Your task to perform on an android device: turn off smart reply in the gmail app Image 0: 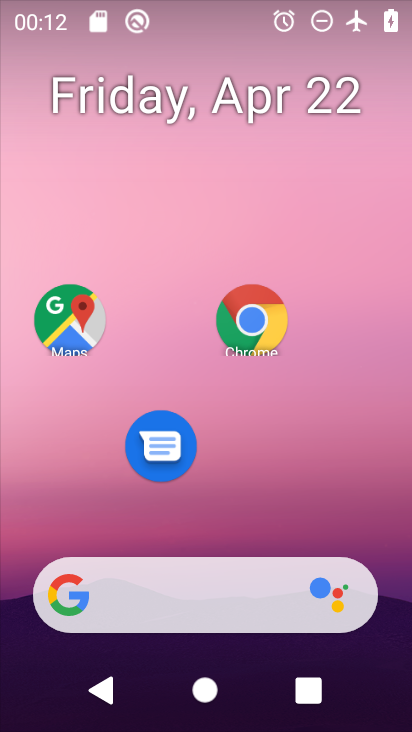
Step 0: drag from (200, 542) to (223, 146)
Your task to perform on an android device: turn off smart reply in the gmail app Image 1: 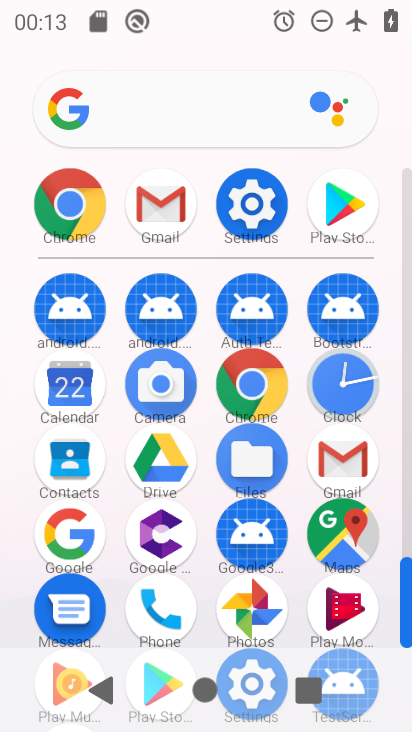
Step 1: click (344, 454)
Your task to perform on an android device: turn off smart reply in the gmail app Image 2: 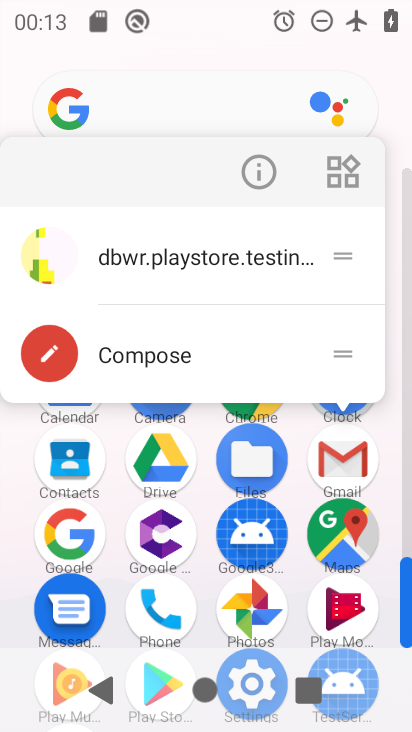
Step 2: click (256, 178)
Your task to perform on an android device: turn off smart reply in the gmail app Image 3: 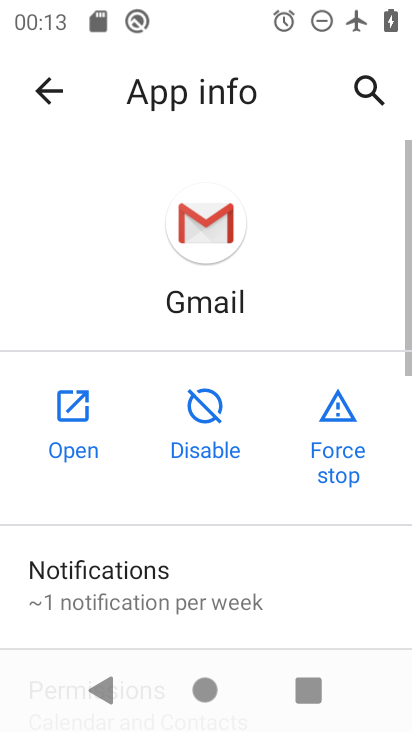
Step 3: click (86, 395)
Your task to perform on an android device: turn off smart reply in the gmail app Image 4: 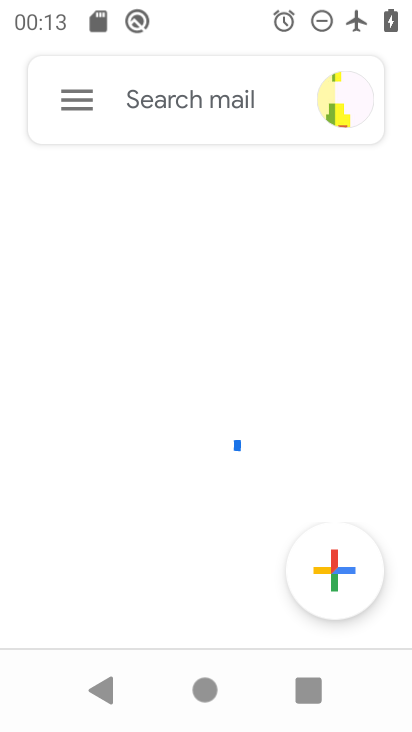
Step 4: click (62, 93)
Your task to perform on an android device: turn off smart reply in the gmail app Image 5: 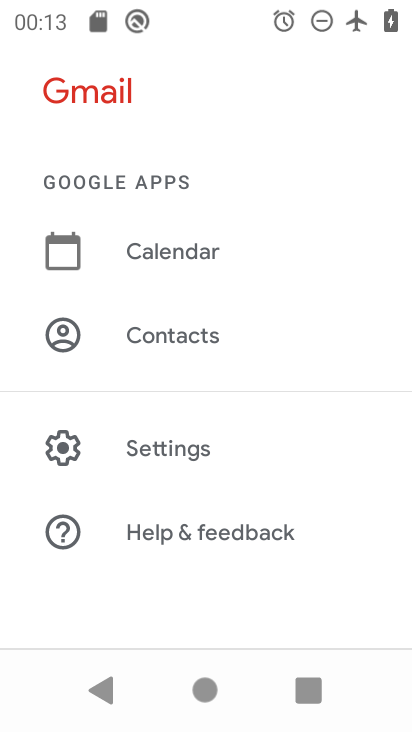
Step 5: drag from (184, 498) to (261, 267)
Your task to perform on an android device: turn off smart reply in the gmail app Image 6: 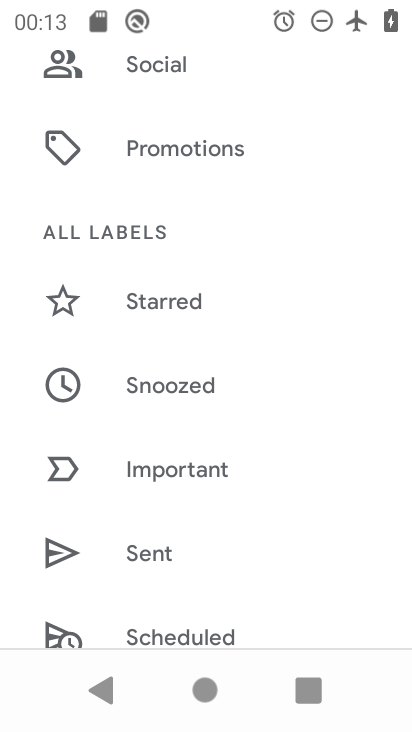
Step 6: drag from (261, 532) to (260, 158)
Your task to perform on an android device: turn off smart reply in the gmail app Image 7: 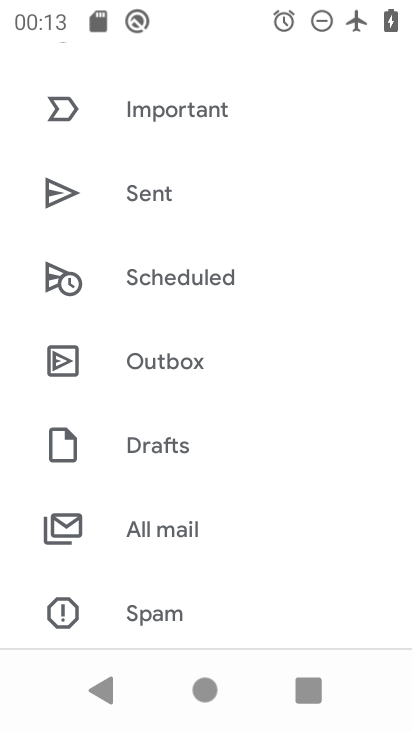
Step 7: drag from (221, 566) to (188, 227)
Your task to perform on an android device: turn off smart reply in the gmail app Image 8: 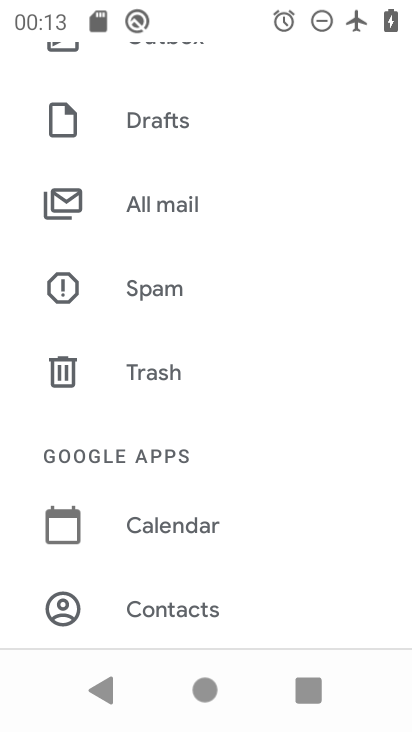
Step 8: drag from (235, 605) to (265, 82)
Your task to perform on an android device: turn off smart reply in the gmail app Image 9: 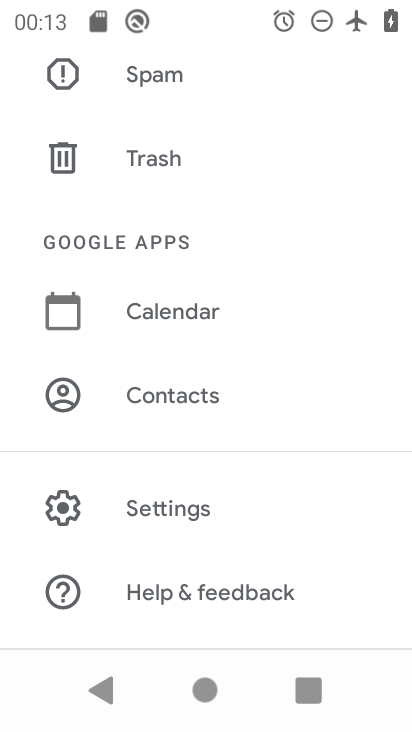
Step 9: drag from (180, 528) to (231, 276)
Your task to perform on an android device: turn off smart reply in the gmail app Image 10: 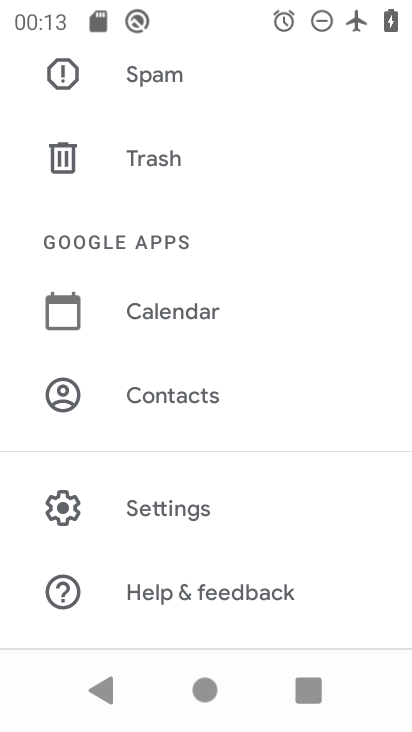
Step 10: click (202, 516)
Your task to perform on an android device: turn off smart reply in the gmail app Image 11: 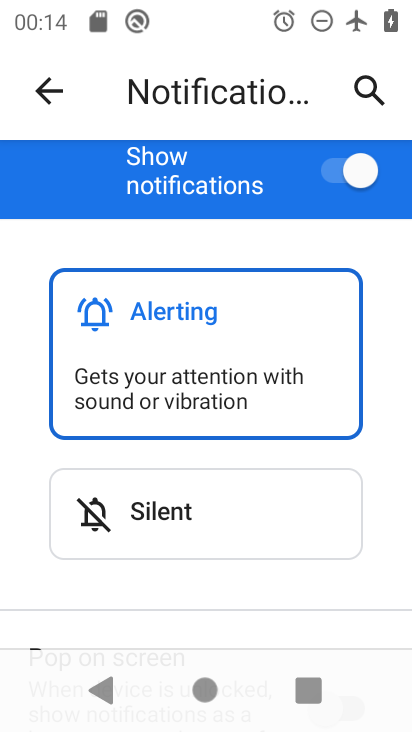
Step 11: drag from (173, 578) to (238, 109)
Your task to perform on an android device: turn off smart reply in the gmail app Image 12: 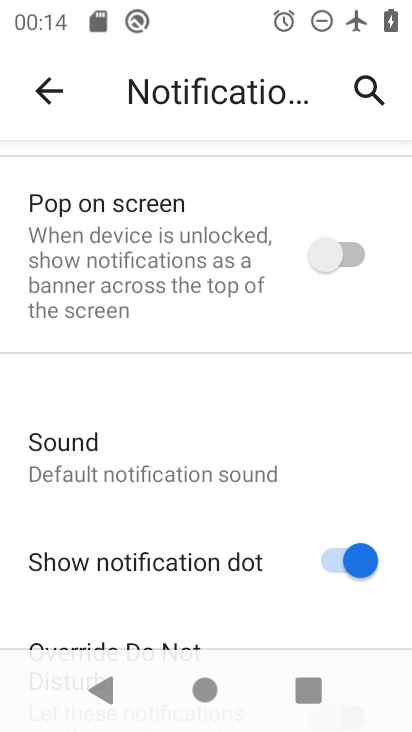
Step 12: drag from (194, 446) to (241, 267)
Your task to perform on an android device: turn off smart reply in the gmail app Image 13: 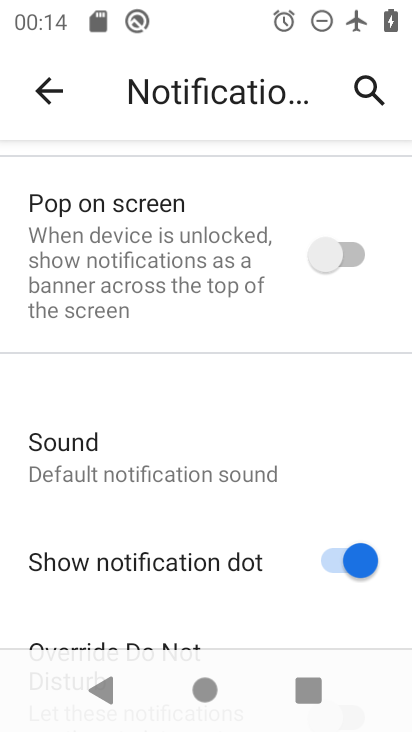
Step 13: drag from (194, 466) to (256, 320)
Your task to perform on an android device: turn off smart reply in the gmail app Image 14: 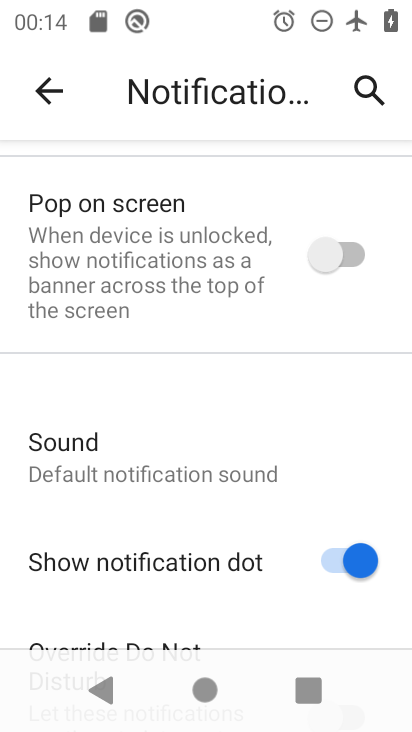
Step 14: drag from (202, 525) to (293, 145)
Your task to perform on an android device: turn off smart reply in the gmail app Image 15: 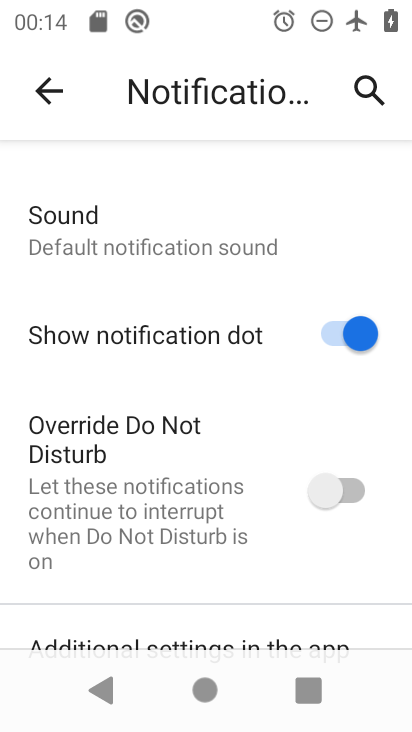
Step 15: drag from (209, 503) to (274, 159)
Your task to perform on an android device: turn off smart reply in the gmail app Image 16: 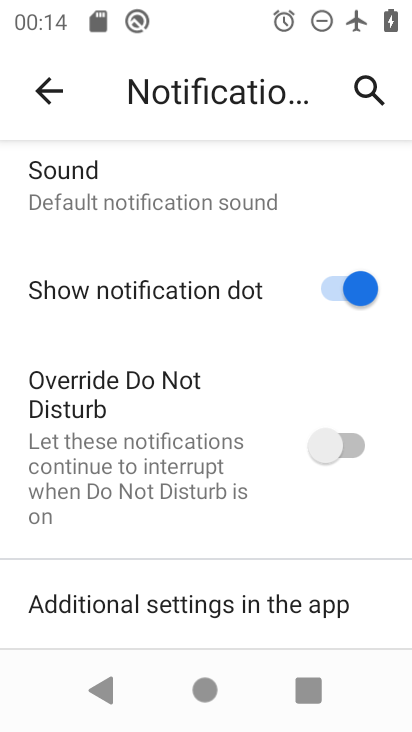
Step 16: drag from (204, 322) to (236, 724)
Your task to perform on an android device: turn off smart reply in the gmail app Image 17: 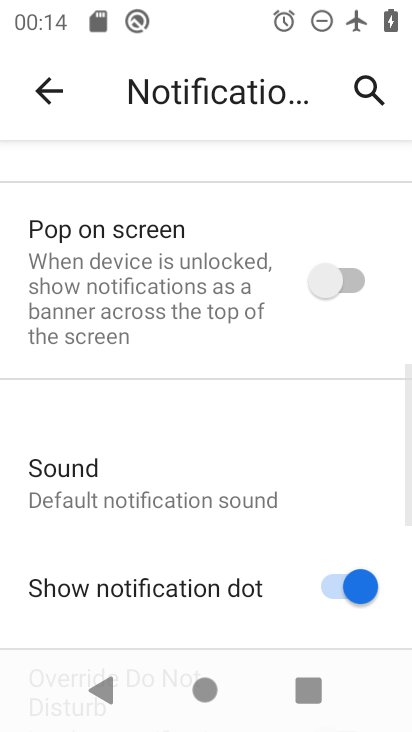
Step 17: drag from (247, 235) to (247, 726)
Your task to perform on an android device: turn off smart reply in the gmail app Image 18: 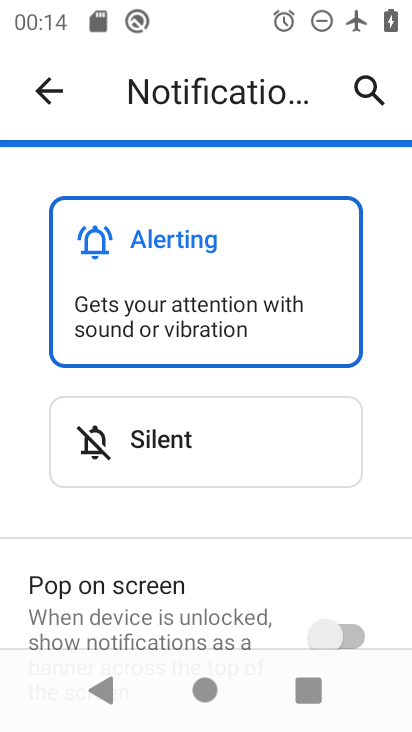
Step 18: click (45, 81)
Your task to perform on an android device: turn off smart reply in the gmail app Image 19: 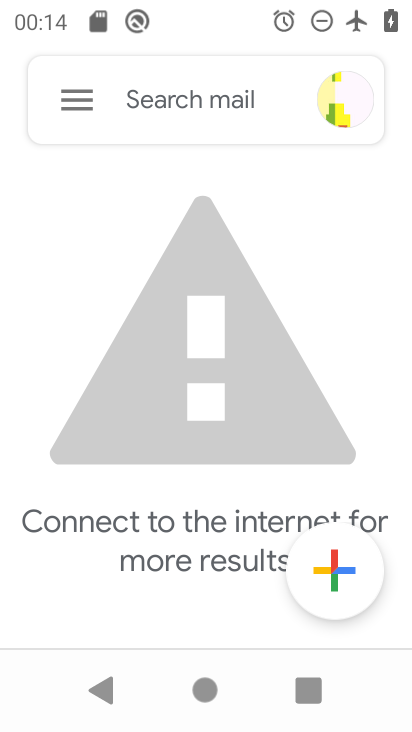
Step 19: click (48, 68)
Your task to perform on an android device: turn off smart reply in the gmail app Image 20: 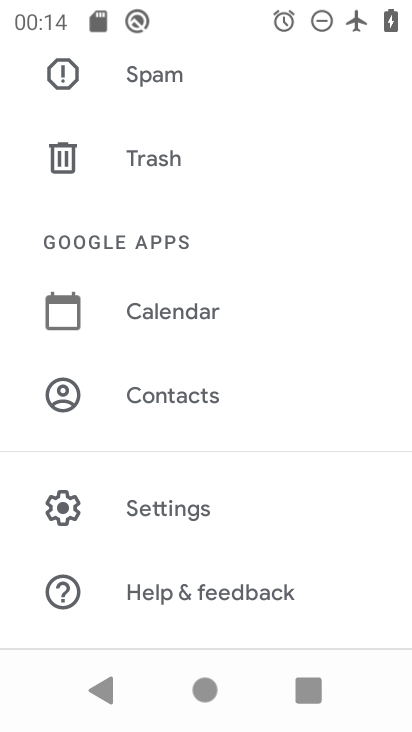
Step 20: click (183, 528)
Your task to perform on an android device: turn off smart reply in the gmail app Image 21: 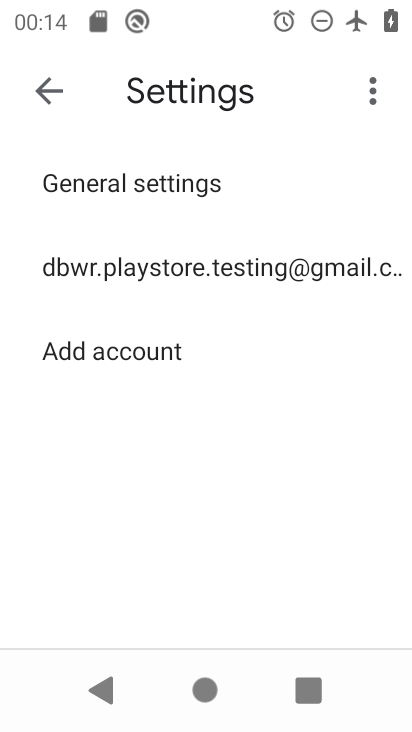
Step 21: click (202, 276)
Your task to perform on an android device: turn off smart reply in the gmail app Image 22: 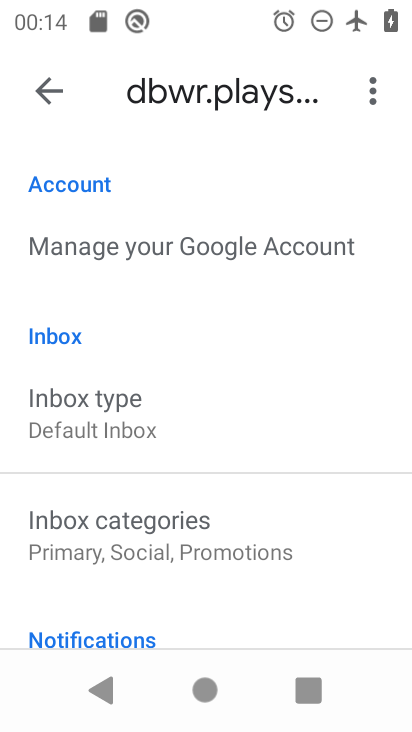
Step 22: drag from (172, 512) to (290, 126)
Your task to perform on an android device: turn off smart reply in the gmail app Image 23: 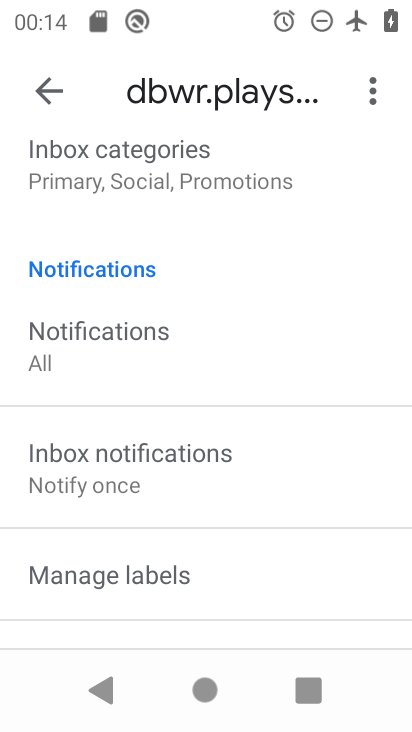
Step 23: drag from (210, 509) to (305, 192)
Your task to perform on an android device: turn off smart reply in the gmail app Image 24: 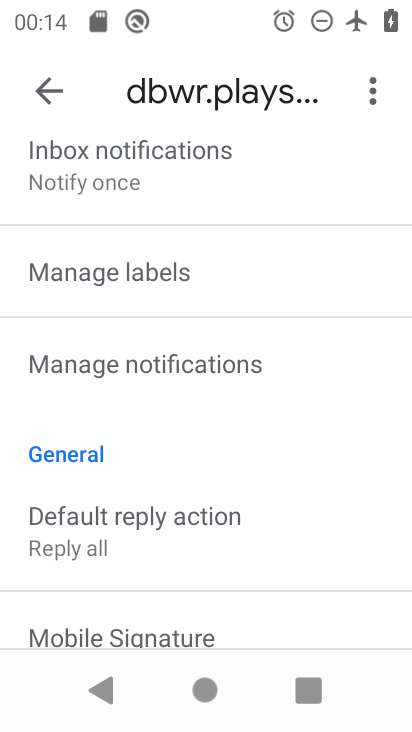
Step 24: drag from (205, 556) to (263, 273)
Your task to perform on an android device: turn off smart reply in the gmail app Image 25: 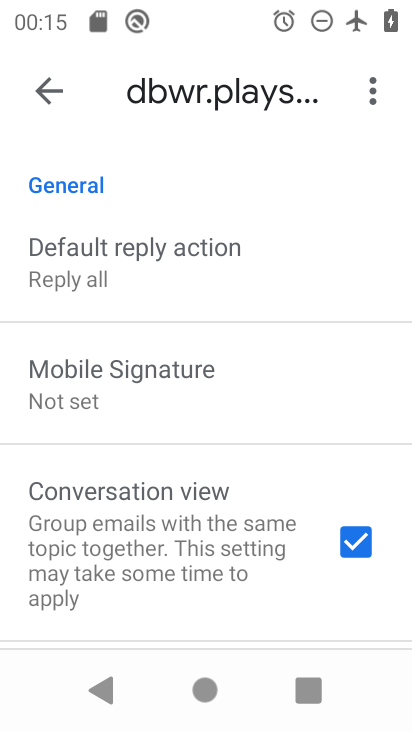
Step 25: drag from (204, 520) to (234, 292)
Your task to perform on an android device: turn off smart reply in the gmail app Image 26: 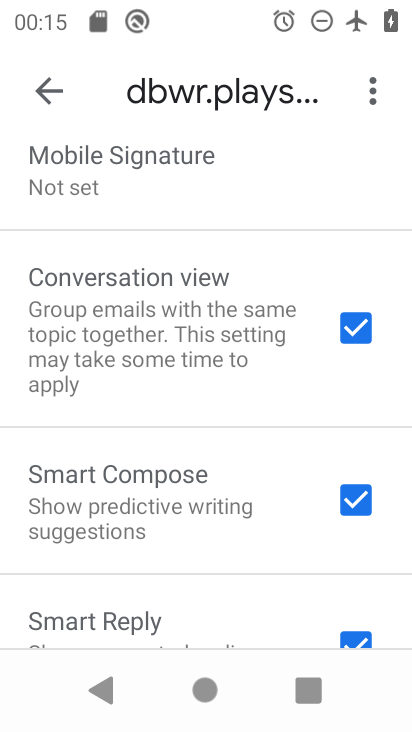
Step 26: drag from (241, 543) to (251, 325)
Your task to perform on an android device: turn off smart reply in the gmail app Image 27: 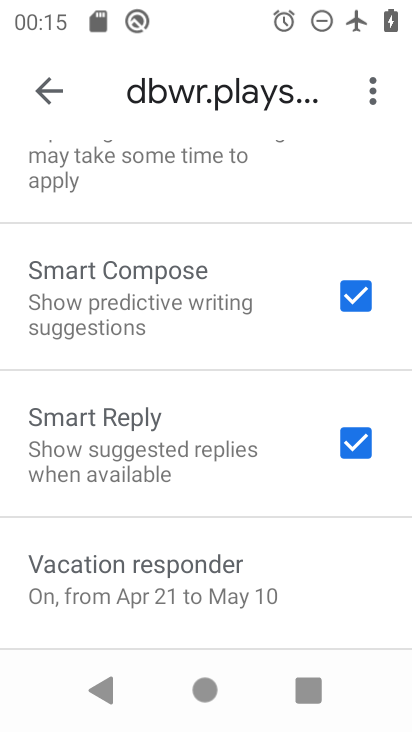
Step 27: click (323, 446)
Your task to perform on an android device: turn off smart reply in the gmail app Image 28: 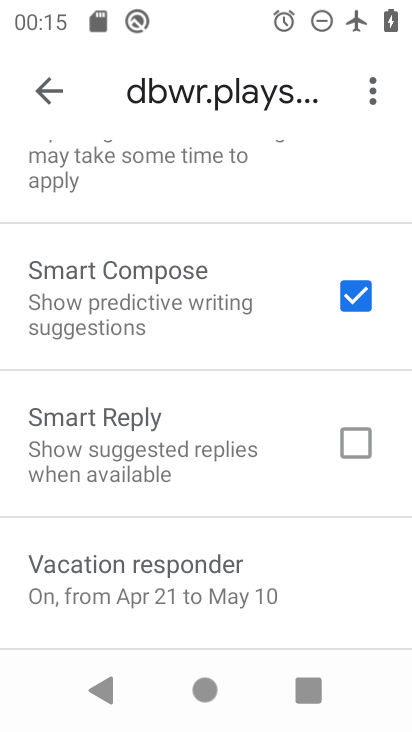
Step 28: task complete